Your task to perform on an android device: Show me the alarms in the clock app Image 0: 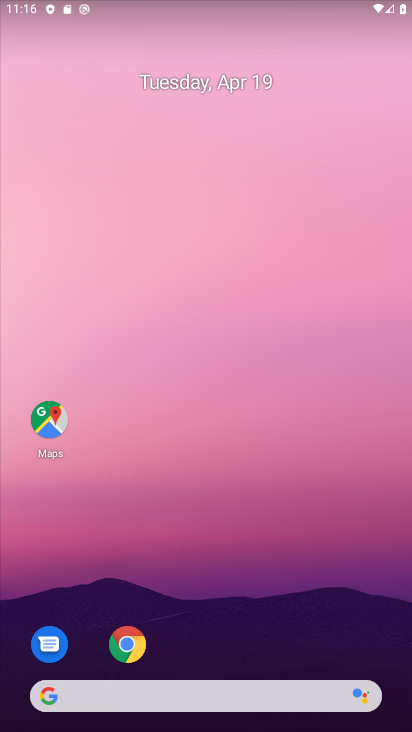
Step 0: drag from (220, 725) to (222, 99)
Your task to perform on an android device: Show me the alarms in the clock app Image 1: 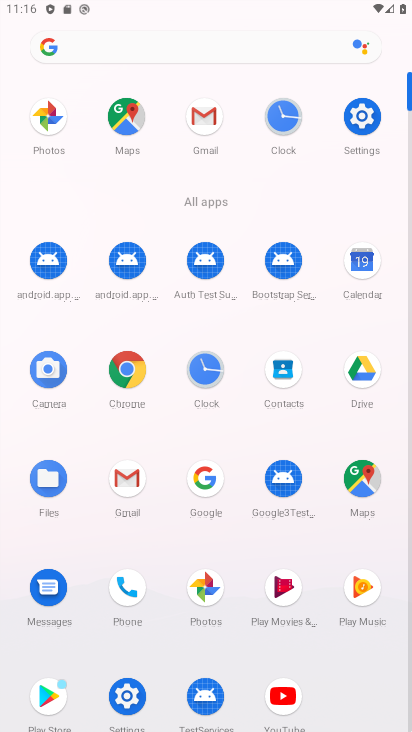
Step 1: click (203, 373)
Your task to perform on an android device: Show me the alarms in the clock app Image 2: 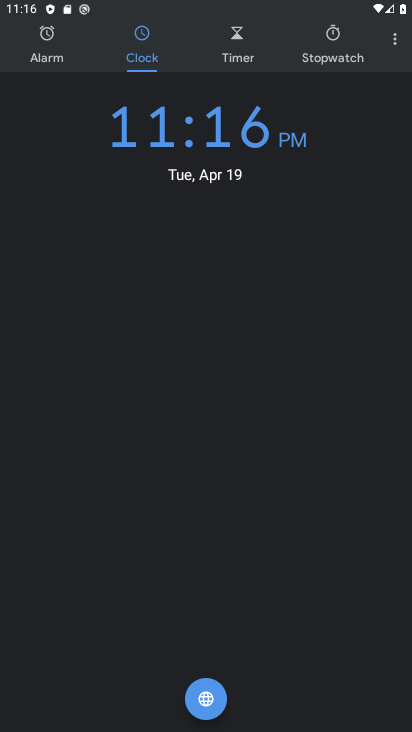
Step 2: click (49, 48)
Your task to perform on an android device: Show me the alarms in the clock app Image 3: 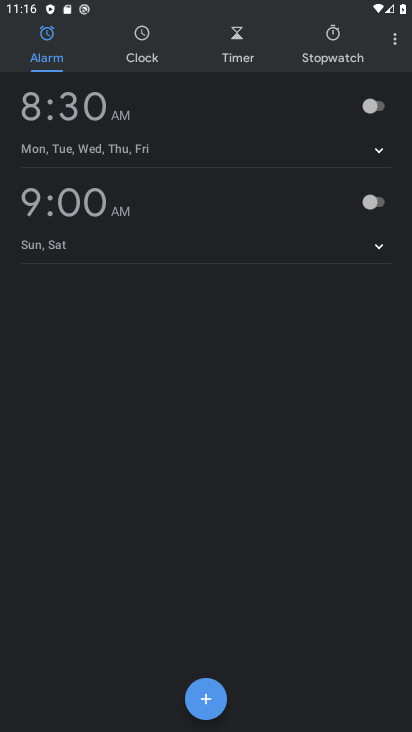
Step 3: task complete